Your task to perform on an android device: change alarm snooze length Image 0: 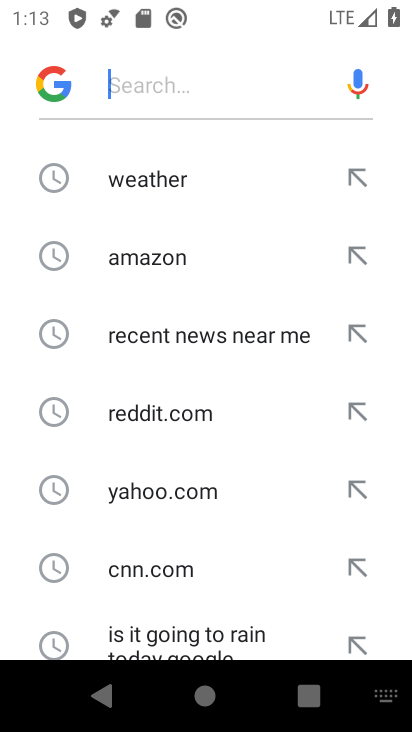
Step 0: press home button
Your task to perform on an android device: change alarm snooze length Image 1: 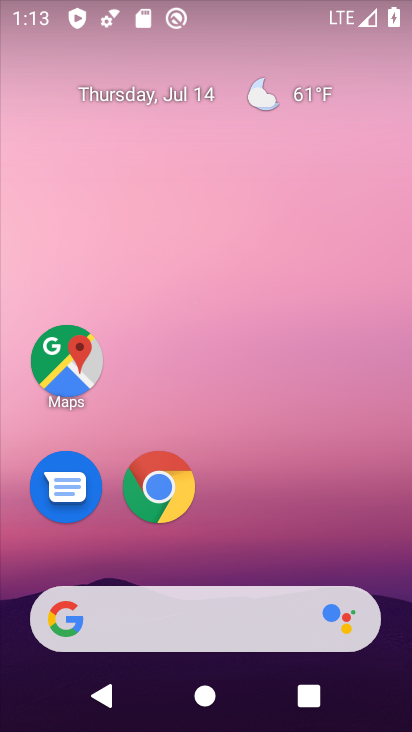
Step 1: drag from (353, 543) to (373, 258)
Your task to perform on an android device: change alarm snooze length Image 2: 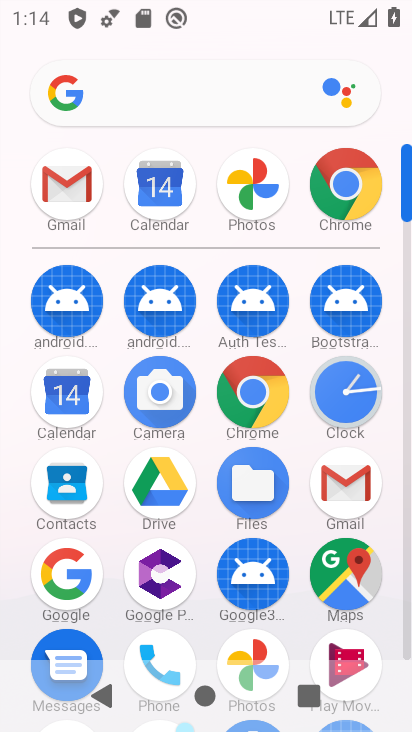
Step 2: click (351, 381)
Your task to perform on an android device: change alarm snooze length Image 3: 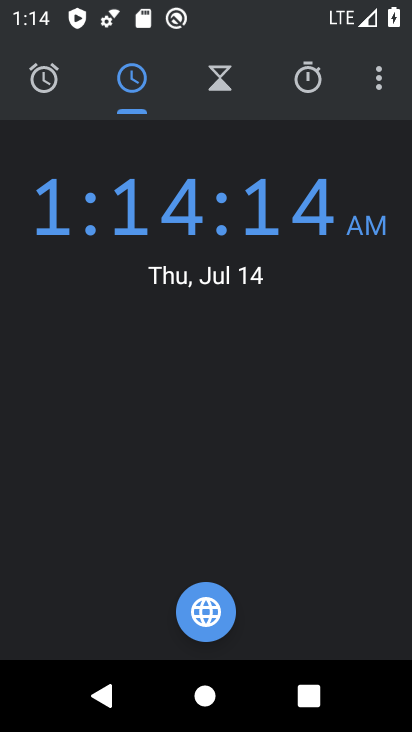
Step 3: click (378, 90)
Your task to perform on an android device: change alarm snooze length Image 4: 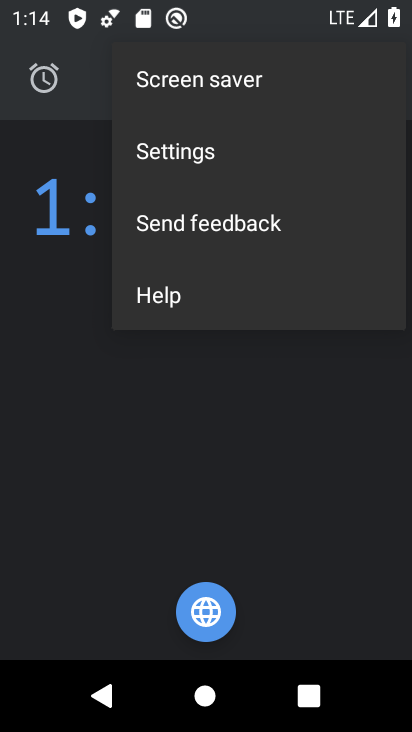
Step 4: click (233, 153)
Your task to perform on an android device: change alarm snooze length Image 5: 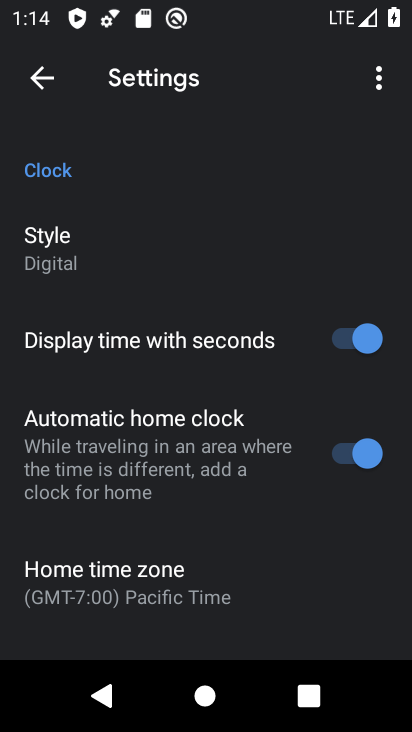
Step 5: drag from (321, 552) to (320, 483)
Your task to perform on an android device: change alarm snooze length Image 6: 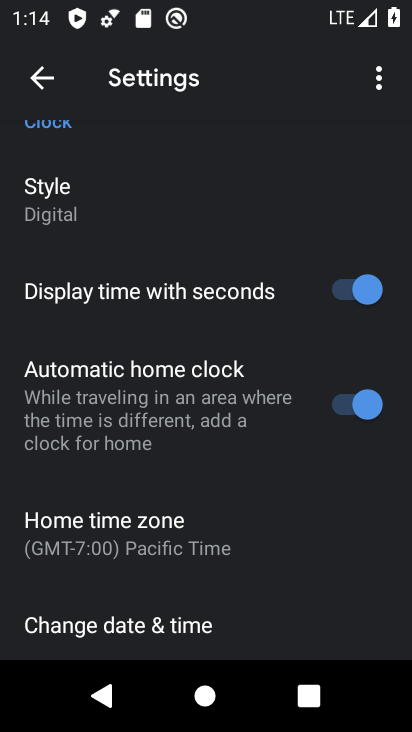
Step 6: drag from (313, 538) to (312, 455)
Your task to perform on an android device: change alarm snooze length Image 7: 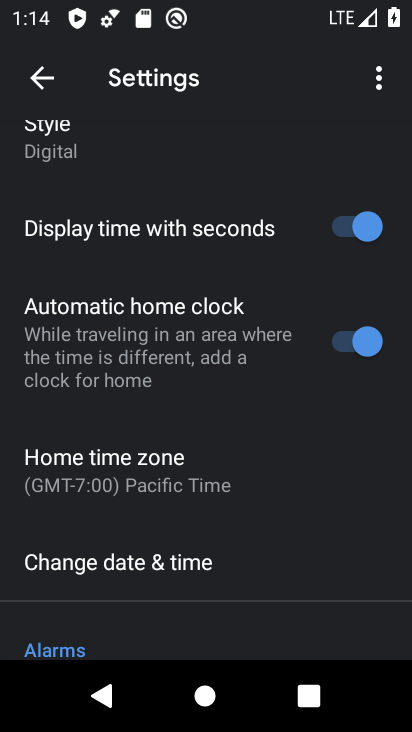
Step 7: drag from (310, 547) to (308, 468)
Your task to perform on an android device: change alarm snooze length Image 8: 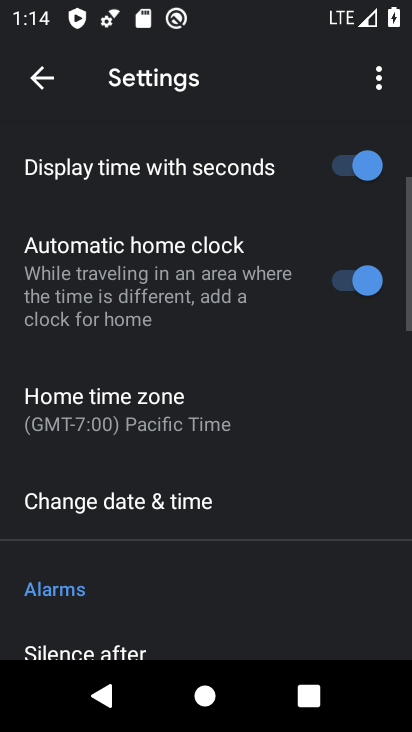
Step 8: drag from (314, 552) to (318, 415)
Your task to perform on an android device: change alarm snooze length Image 9: 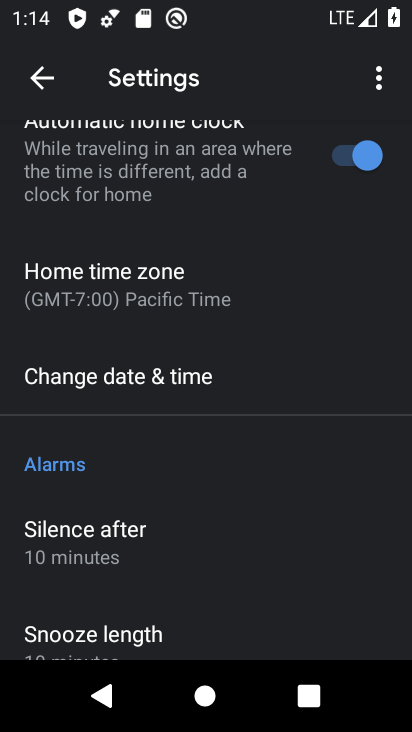
Step 9: drag from (328, 531) to (328, 438)
Your task to perform on an android device: change alarm snooze length Image 10: 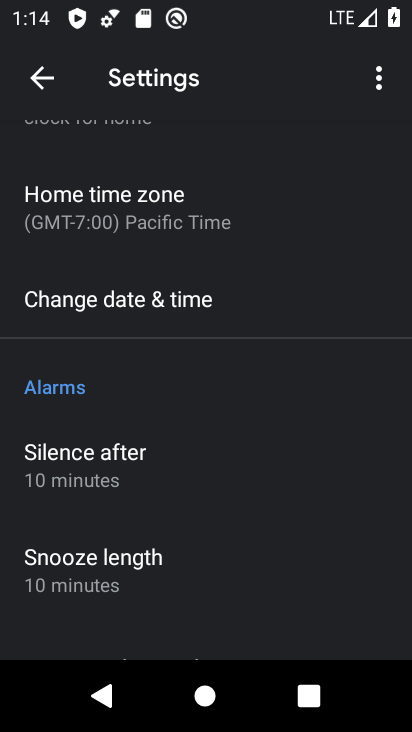
Step 10: drag from (327, 537) to (328, 462)
Your task to perform on an android device: change alarm snooze length Image 11: 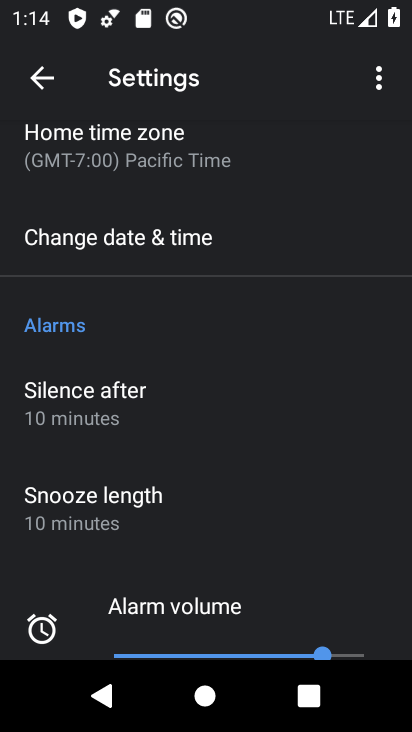
Step 11: drag from (323, 526) to (321, 450)
Your task to perform on an android device: change alarm snooze length Image 12: 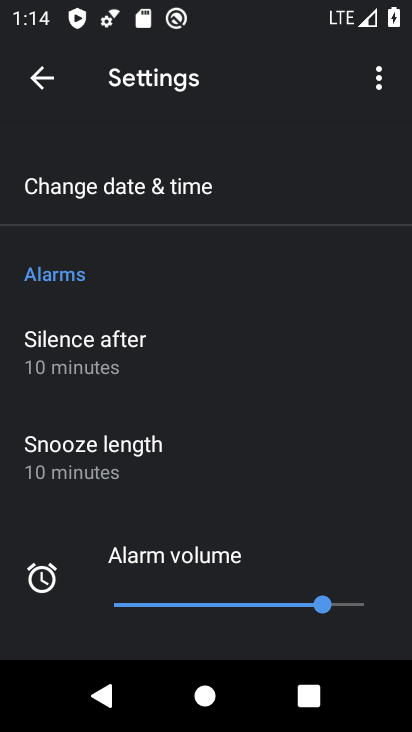
Step 12: drag from (317, 348) to (317, 407)
Your task to perform on an android device: change alarm snooze length Image 13: 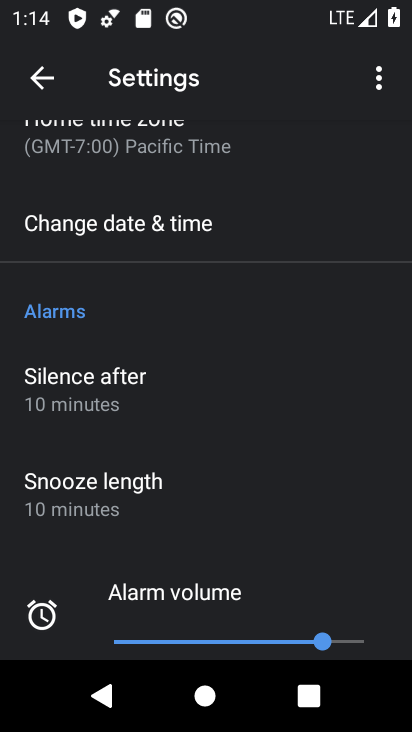
Step 13: click (265, 511)
Your task to perform on an android device: change alarm snooze length Image 14: 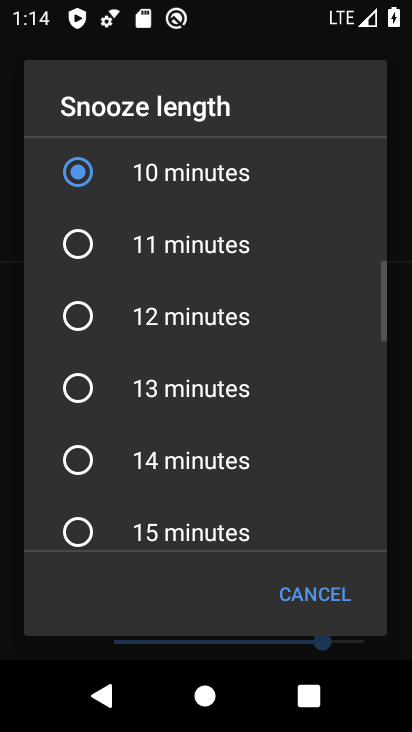
Step 14: click (227, 466)
Your task to perform on an android device: change alarm snooze length Image 15: 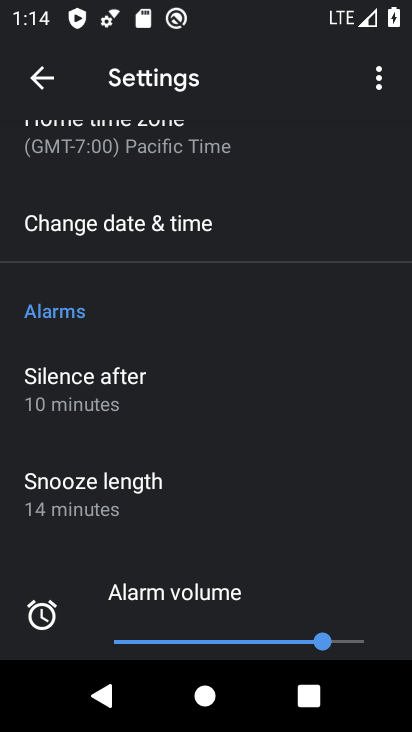
Step 15: task complete